Your task to perform on an android device: Open Google Maps Image 0: 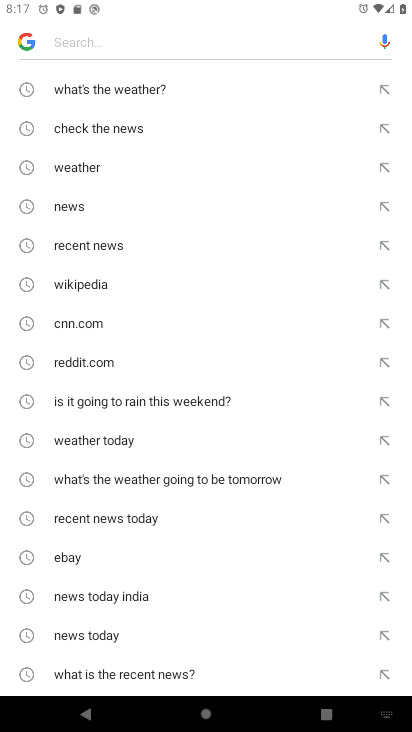
Step 0: press home button
Your task to perform on an android device: Open Google Maps Image 1: 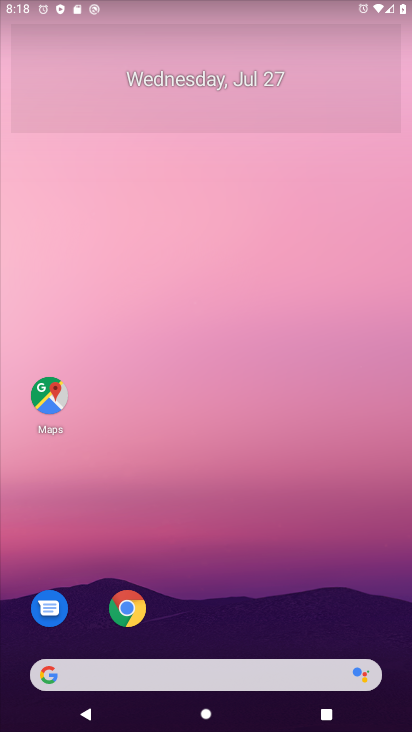
Step 1: click (53, 382)
Your task to perform on an android device: Open Google Maps Image 2: 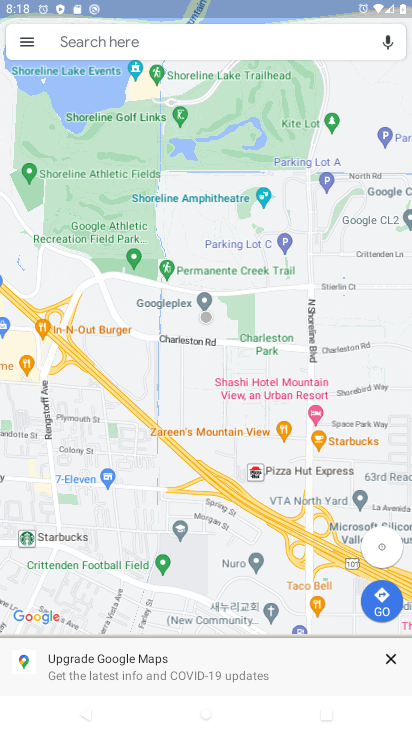
Step 2: task complete